Your task to perform on an android device: Open calendar and show me the second week of next month Image 0: 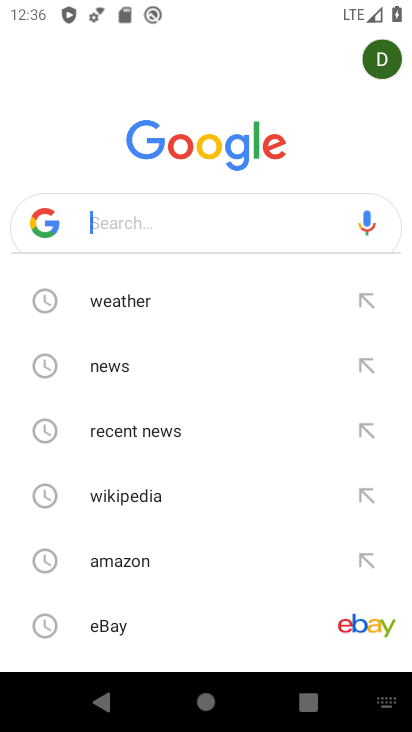
Step 0: press home button
Your task to perform on an android device: Open calendar and show me the second week of next month Image 1: 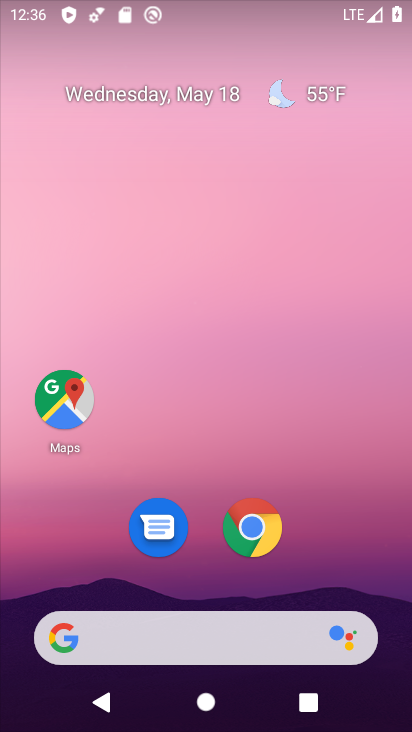
Step 1: drag from (322, 491) to (231, 73)
Your task to perform on an android device: Open calendar and show me the second week of next month Image 2: 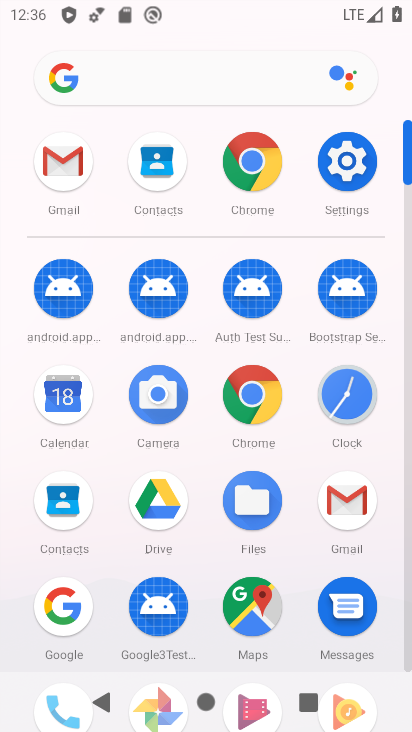
Step 2: click (74, 402)
Your task to perform on an android device: Open calendar and show me the second week of next month Image 3: 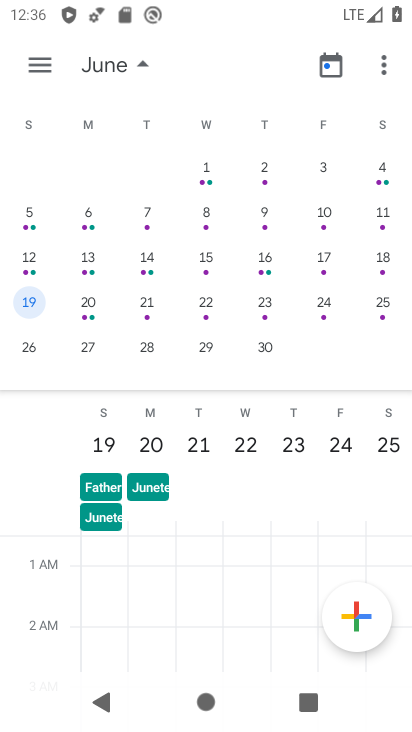
Step 3: click (29, 256)
Your task to perform on an android device: Open calendar and show me the second week of next month Image 4: 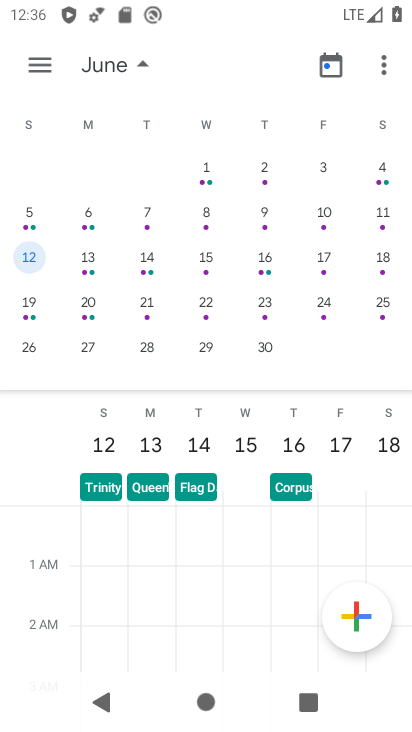
Step 4: click (37, 213)
Your task to perform on an android device: Open calendar and show me the second week of next month Image 5: 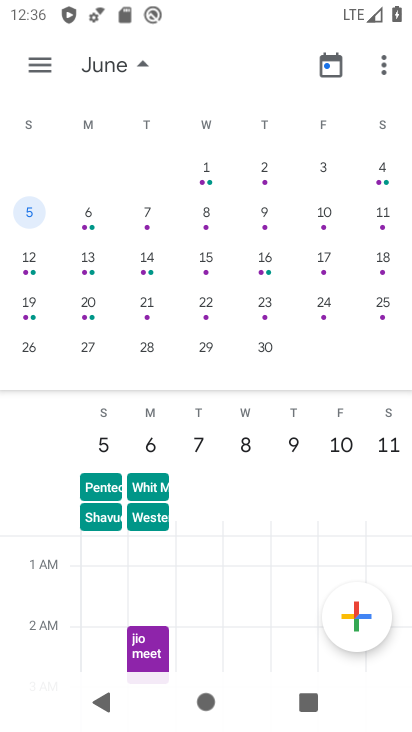
Step 5: task complete